Your task to perform on an android device: Open calendar and show me the first week of next month Image 0: 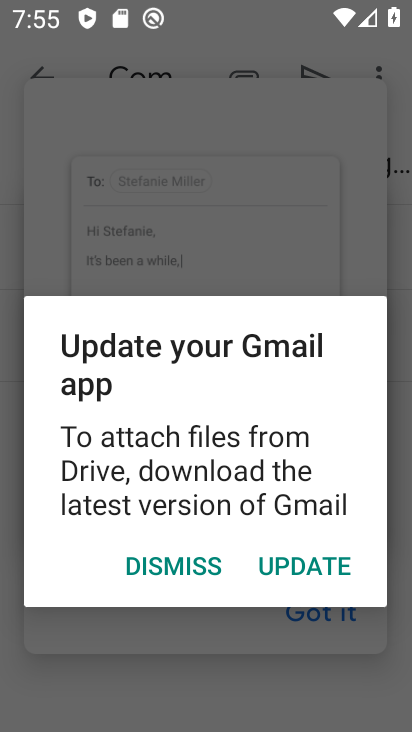
Step 0: press home button
Your task to perform on an android device: Open calendar and show me the first week of next month Image 1: 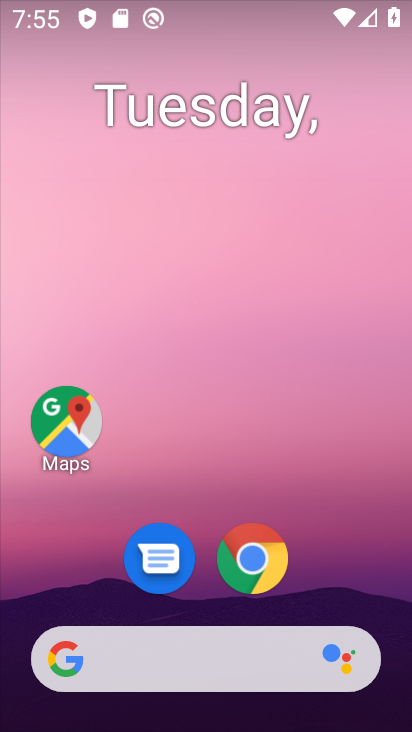
Step 1: drag from (193, 612) to (87, 4)
Your task to perform on an android device: Open calendar and show me the first week of next month Image 2: 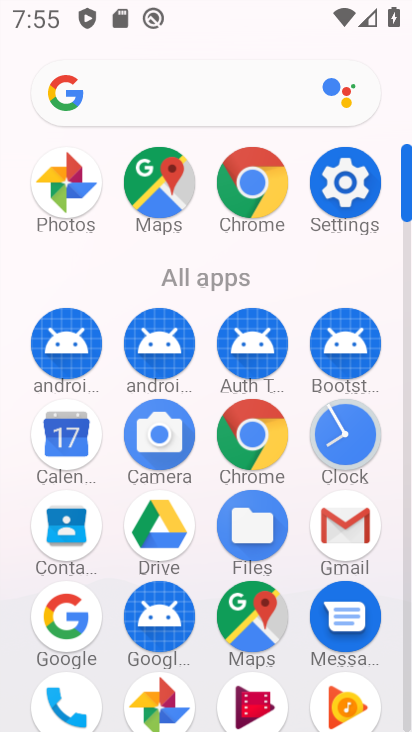
Step 2: click (32, 450)
Your task to perform on an android device: Open calendar and show me the first week of next month Image 3: 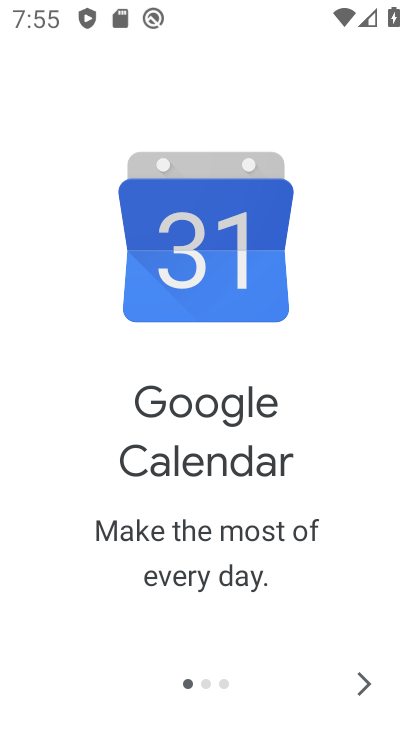
Step 3: click (365, 694)
Your task to perform on an android device: Open calendar and show me the first week of next month Image 4: 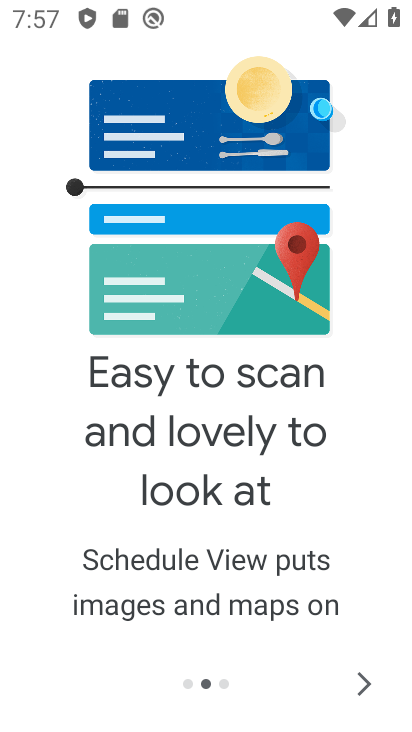
Step 4: click (366, 679)
Your task to perform on an android device: Open calendar and show me the first week of next month Image 5: 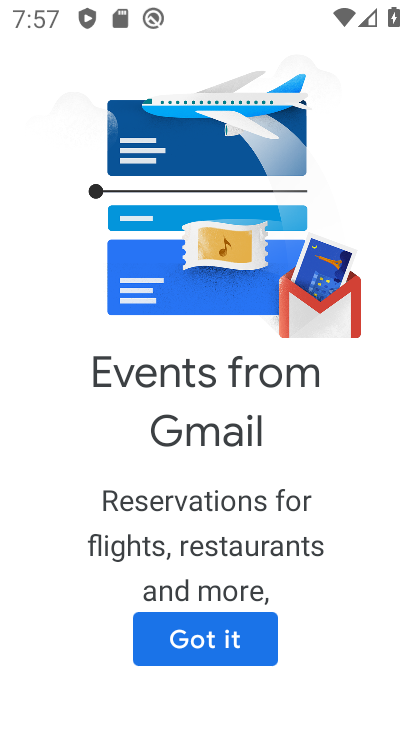
Step 5: task complete